Your task to perform on an android device: Open Google Chrome Image 0: 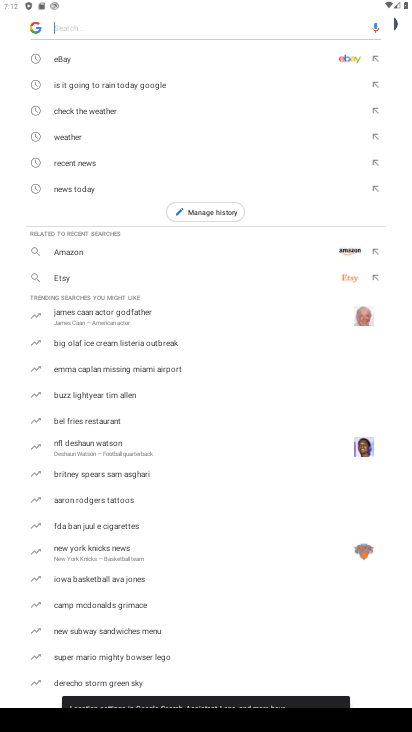
Step 0: press home button
Your task to perform on an android device: Open Google Chrome Image 1: 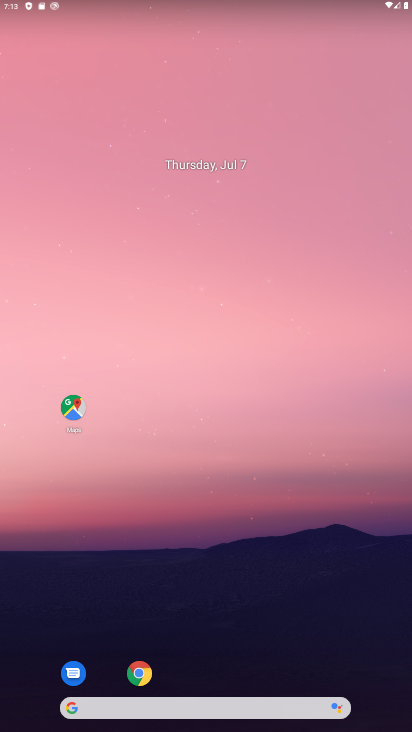
Step 1: click (140, 670)
Your task to perform on an android device: Open Google Chrome Image 2: 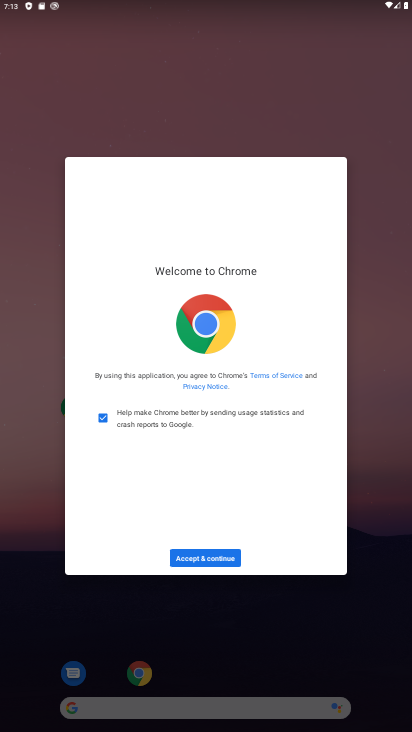
Step 2: click (193, 558)
Your task to perform on an android device: Open Google Chrome Image 3: 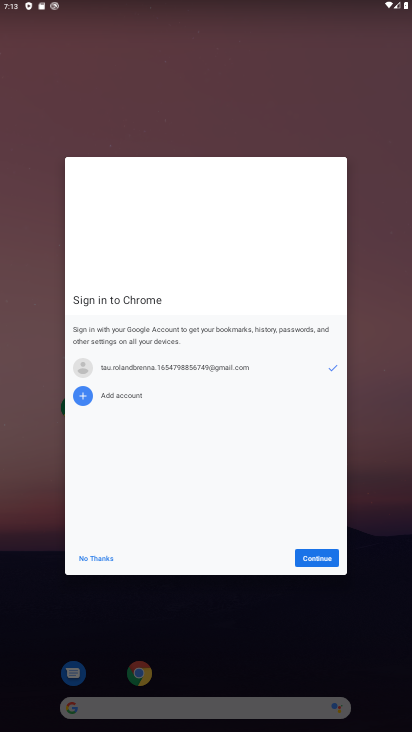
Step 3: click (315, 559)
Your task to perform on an android device: Open Google Chrome Image 4: 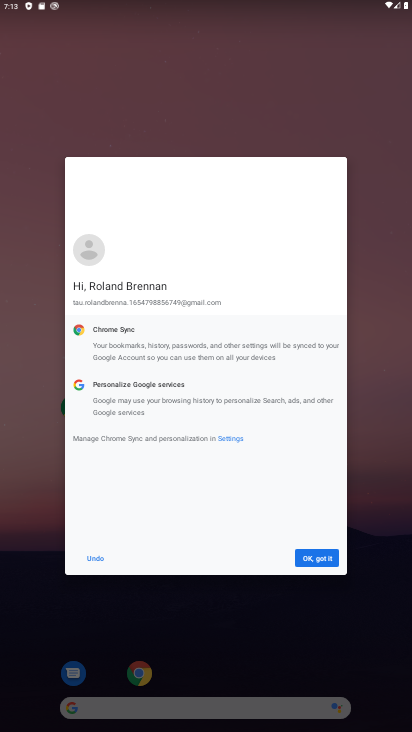
Step 4: click (315, 559)
Your task to perform on an android device: Open Google Chrome Image 5: 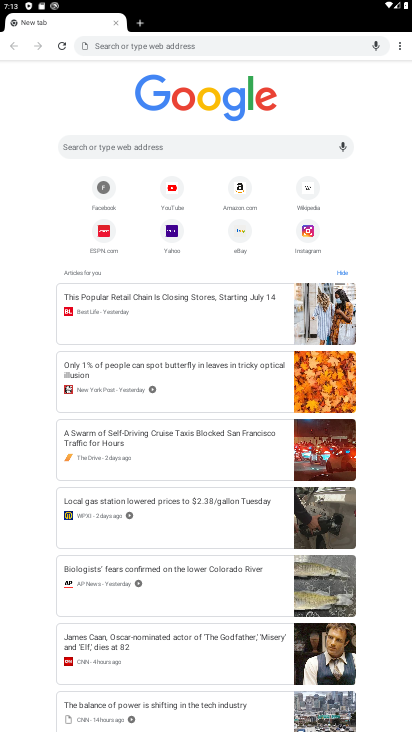
Step 5: task complete